Your task to perform on an android device: snooze an email in the gmail app Image 0: 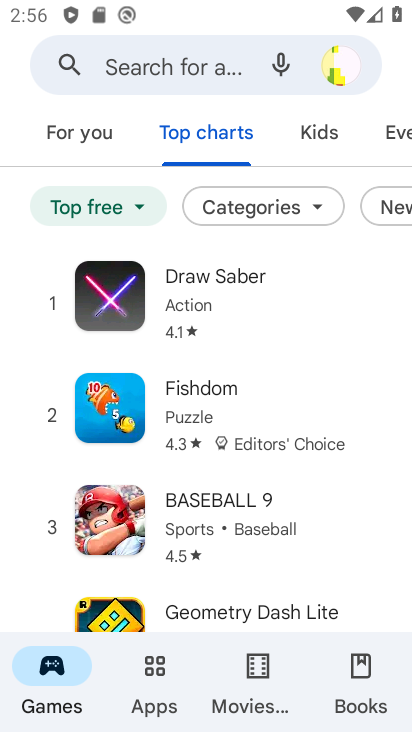
Step 0: press home button
Your task to perform on an android device: snooze an email in the gmail app Image 1: 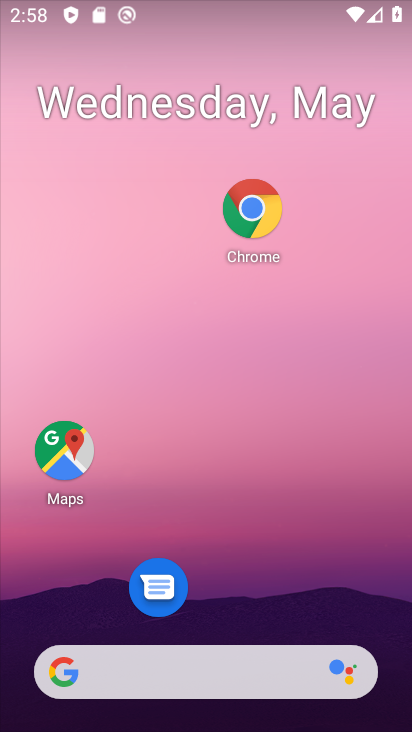
Step 1: drag from (218, 604) to (240, 125)
Your task to perform on an android device: snooze an email in the gmail app Image 2: 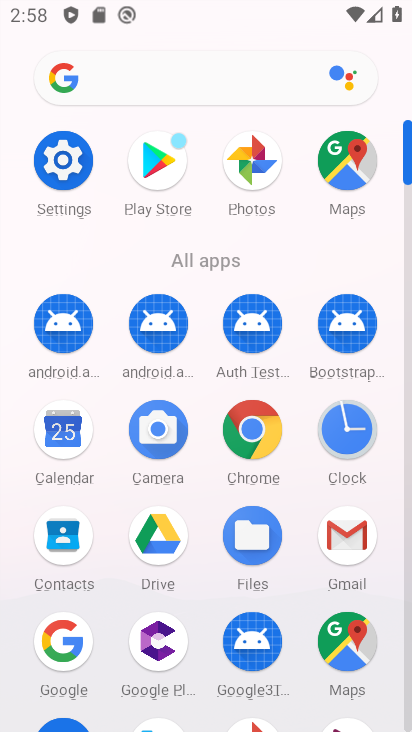
Step 2: click (350, 538)
Your task to perform on an android device: snooze an email in the gmail app Image 3: 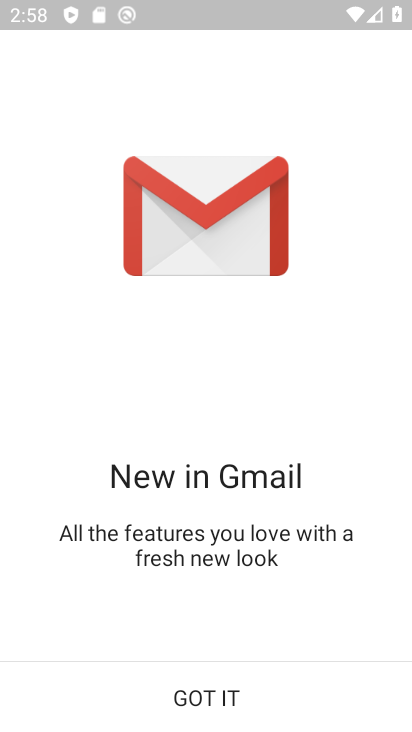
Step 3: click (222, 720)
Your task to perform on an android device: snooze an email in the gmail app Image 4: 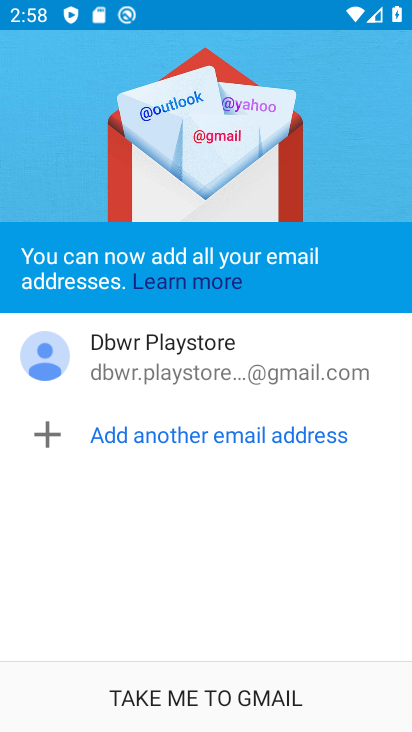
Step 4: click (222, 720)
Your task to perform on an android device: snooze an email in the gmail app Image 5: 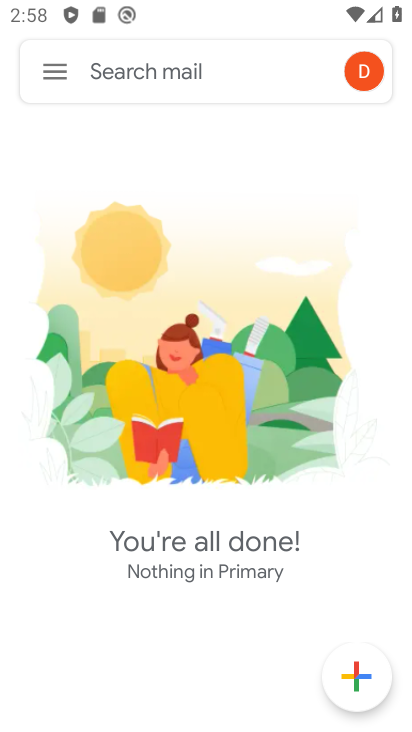
Step 5: click (58, 92)
Your task to perform on an android device: snooze an email in the gmail app Image 6: 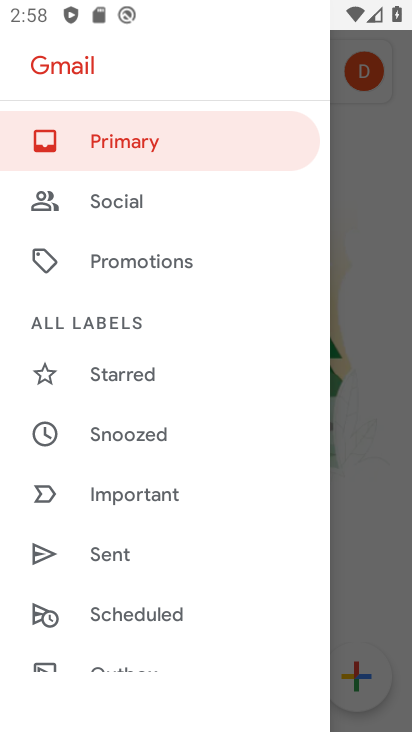
Step 6: drag from (127, 628) to (133, 193)
Your task to perform on an android device: snooze an email in the gmail app Image 7: 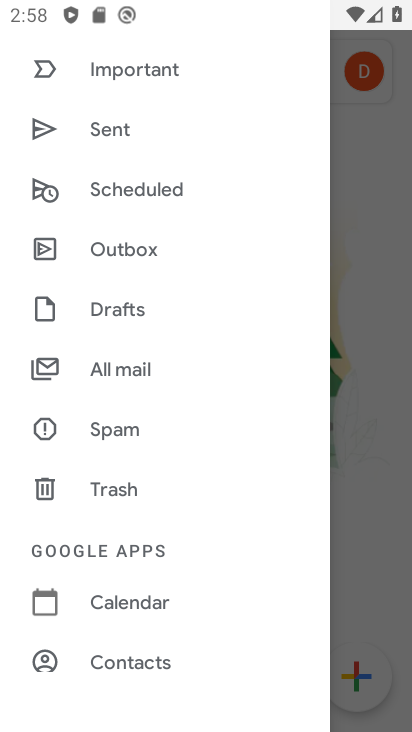
Step 7: click (123, 377)
Your task to perform on an android device: snooze an email in the gmail app Image 8: 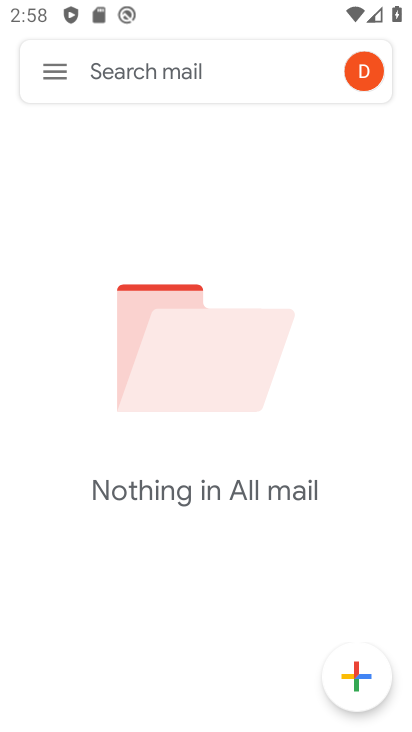
Step 8: task complete